Your task to perform on an android device: When is my next meeting? Image 0: 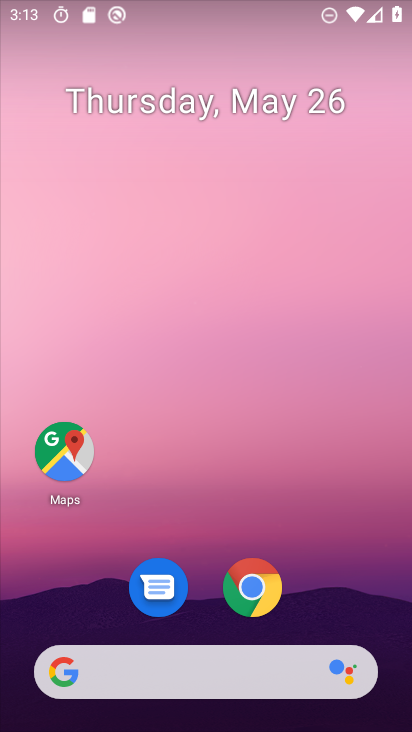
Step 0: drag from (330, 552) to (318, 168)
Your task to perform on an android device: When is my next meeting? Image 1: 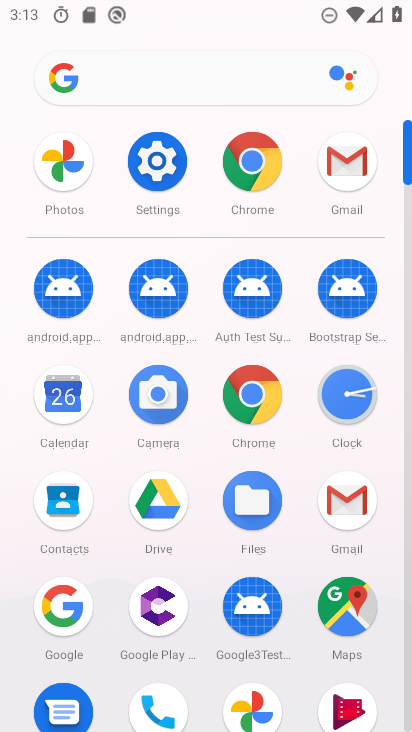
Step 1: click (58, 405)
Your task to perform on an android device: When is my next meeting? Image 2: 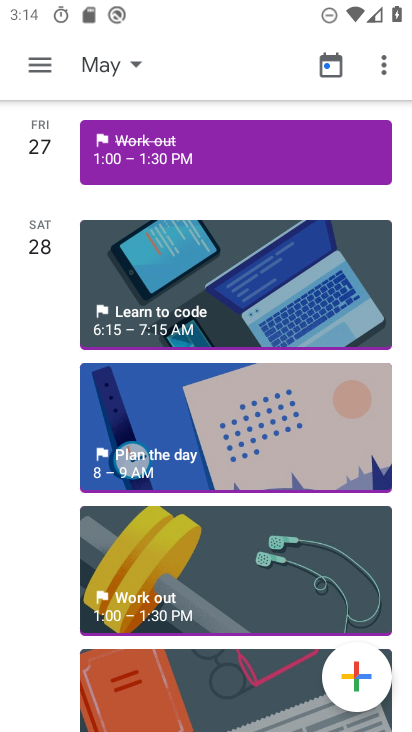
Step 2: click (101, 67)
Your task to perform on an android device: When is my next meeting? Image 3: 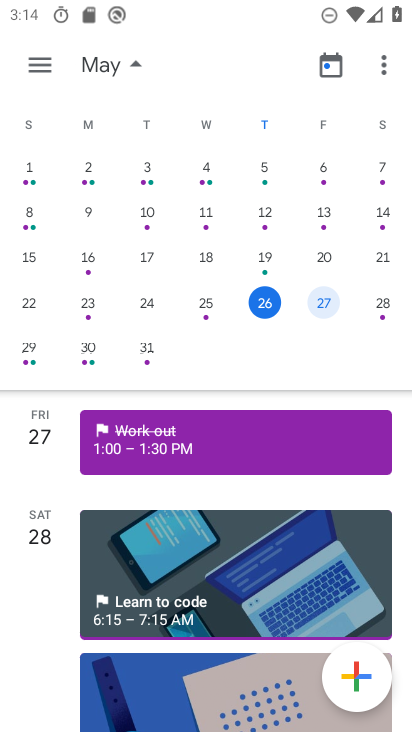
Step 3: task complete